Your task to perform on an android device: toggle notification dots Image 0: 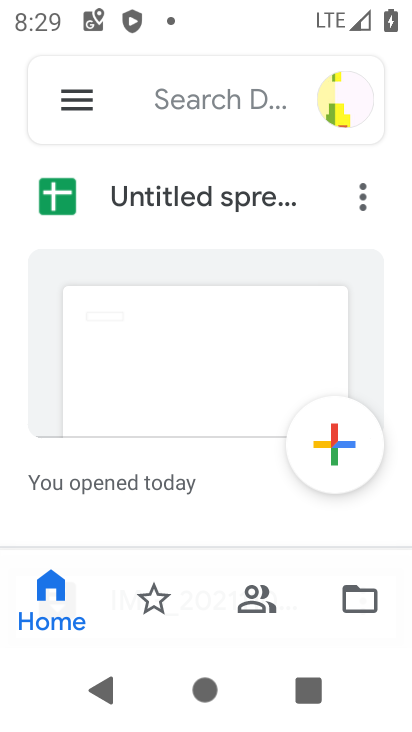
Step 0: press home button
Your task to perform on an android device: toggle notification dots Image 1: 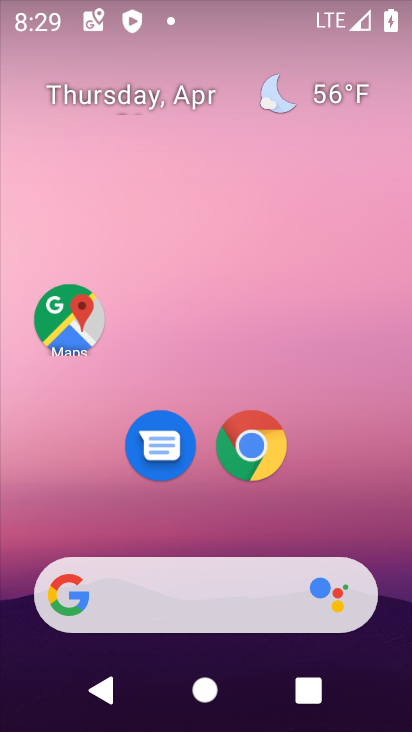
Step 1: drag from (361, 525) to (368, 1)
Your task to perform on an android device: toggle notification dots Image 2: 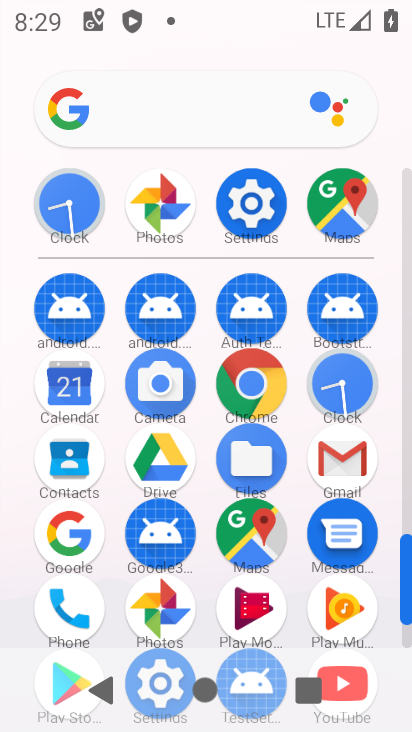
Step 2: click (252, 208)
Your task to perform on an android device: toggle notification dots Image 3: 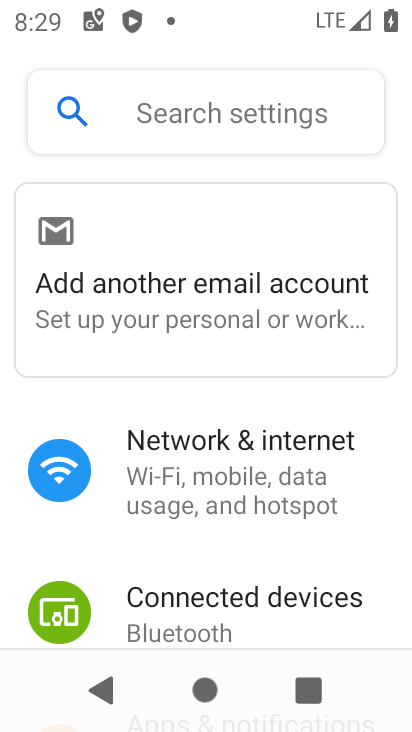
Step 3: drag from (321, 600) to (327, 245)
Your task to perform on an android device: toggle notification dots Image 4: 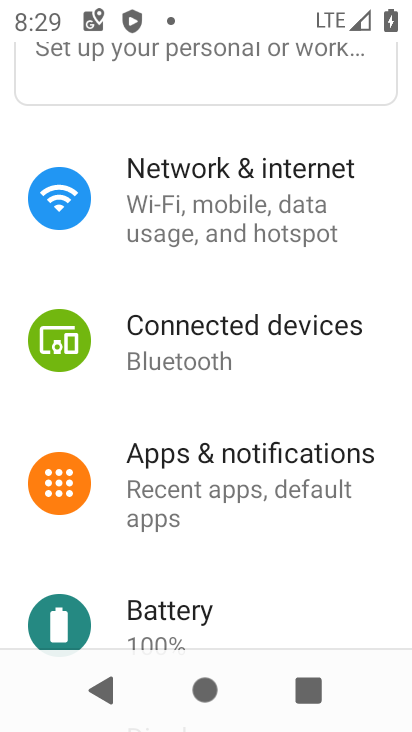
Step 4: click (236, 461)
Your task to perform on an android device: toggle notification dots Image 5: 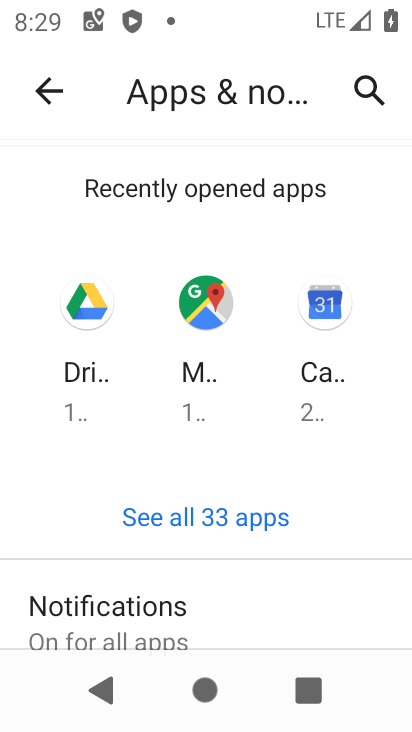
Step 5: drag from (309, 576) to (315, 232)
Your task to perform on an android device: toggle notification dots Image 6: 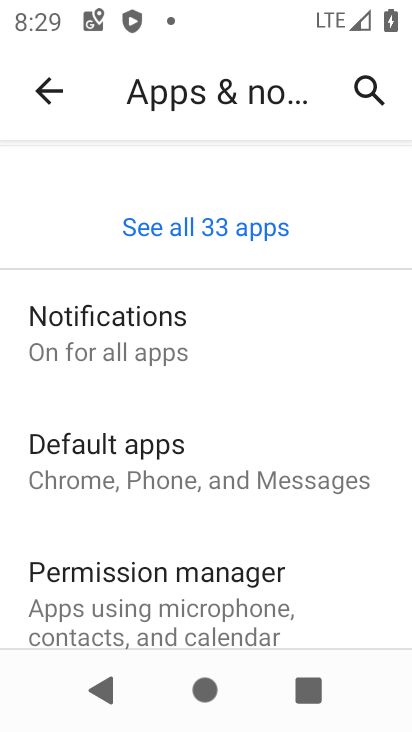
Step 6: click (97, 340)
Your task to perform on an android device: toggle notification dots Image 7: 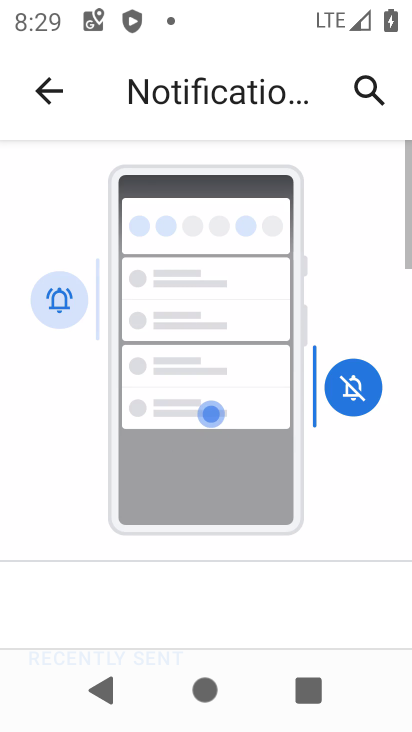
Step 7: drag from (292, 487) to (271, 56)
Your task to perform on an android device: toggle notification dots Image 8: 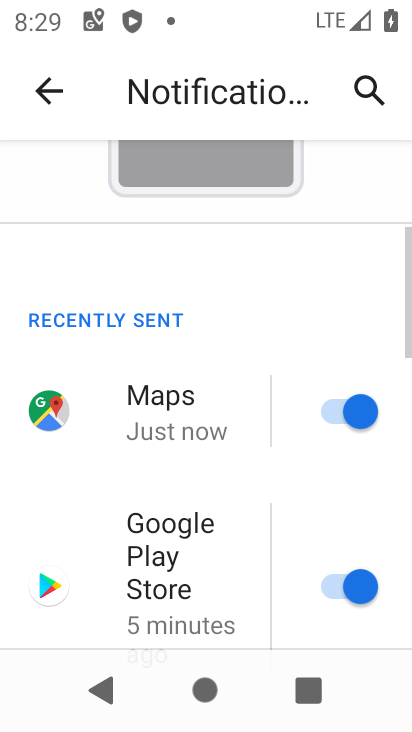
Step 8: drag from (204, 545) to (182, 105)
Your task to perform on an android device: toggle notification dots Image 9: 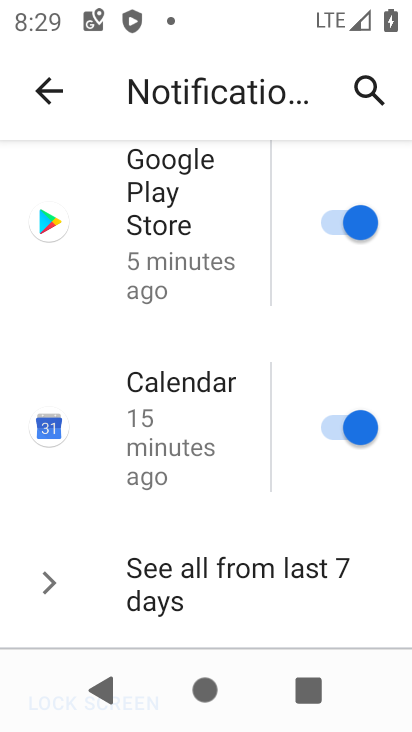
Step 9: drag from (182, 479) to (185, 92)
Your task to perform on an android device: toggle notification dots Image 10: 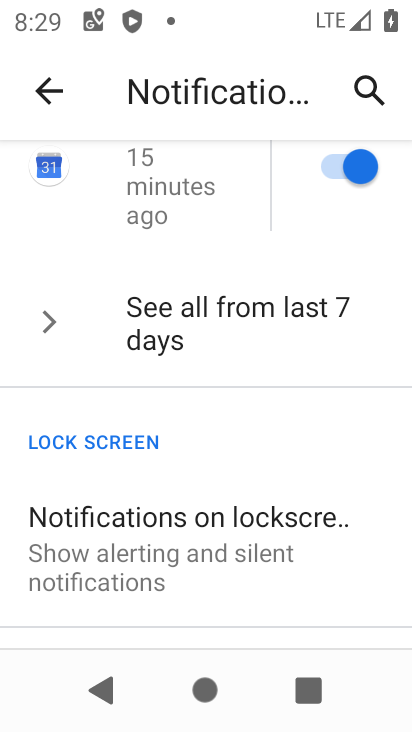
Step 10: drag from (140, 520) to (139, 154)
Your task to perform on an android device: toggle notification dots Image 11: 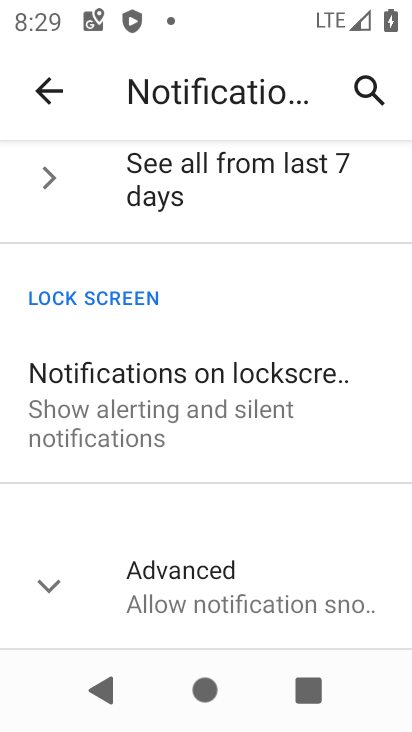
Step 11: click (51, 594)
Your task to perform on an android device: toggle notification dots Image 12: 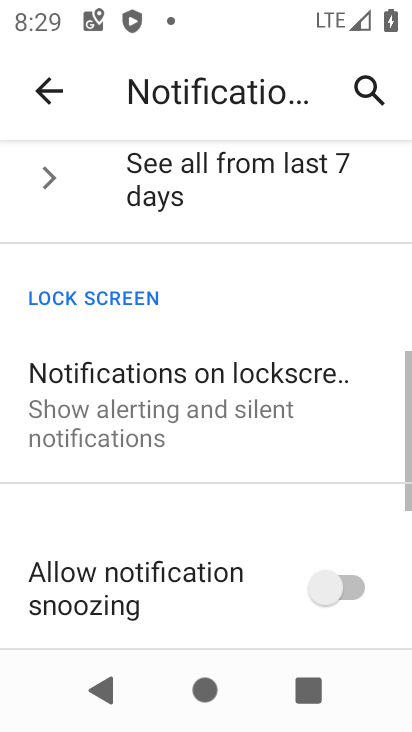
Step 12: drag from (184, 605) to (195, 119)
Your task to perform on an android device: toggle notification dots Image 13: 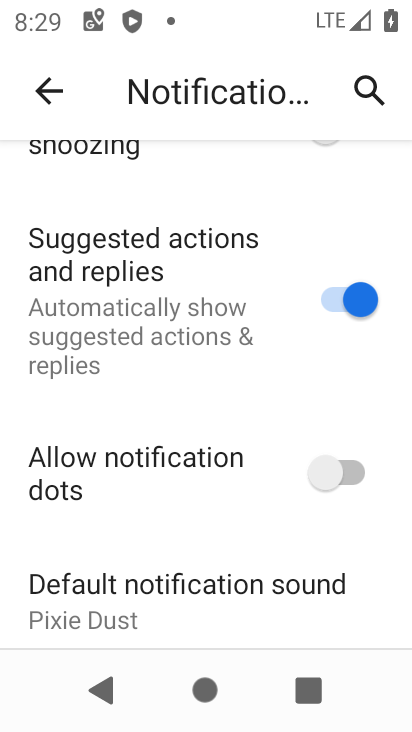
Step 13: click (331, 469)
Your task to perform on an android device: toggle notification dots Image 14: 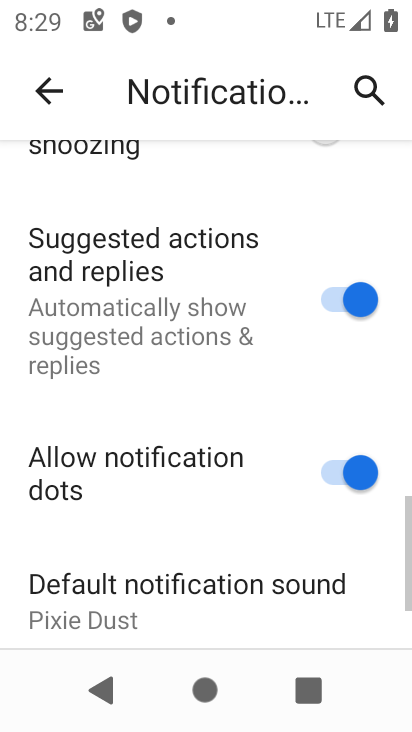
Step 14: task complete